Your task to perform on an android device: Open Wikipedia Image 0: 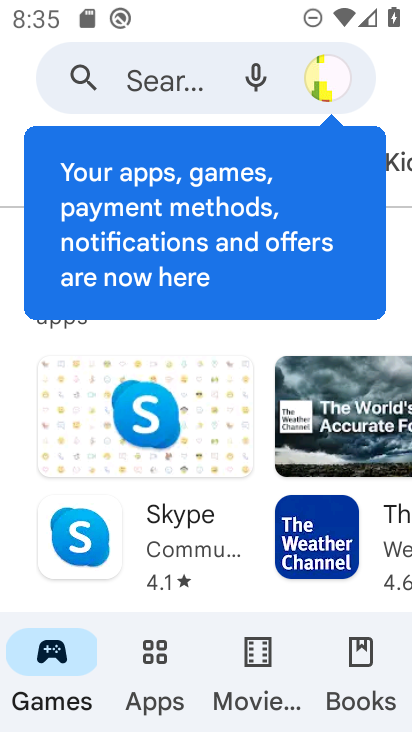
Step 0: press home button
Your task to perform on an android device: Open Wikipedia Image 1: 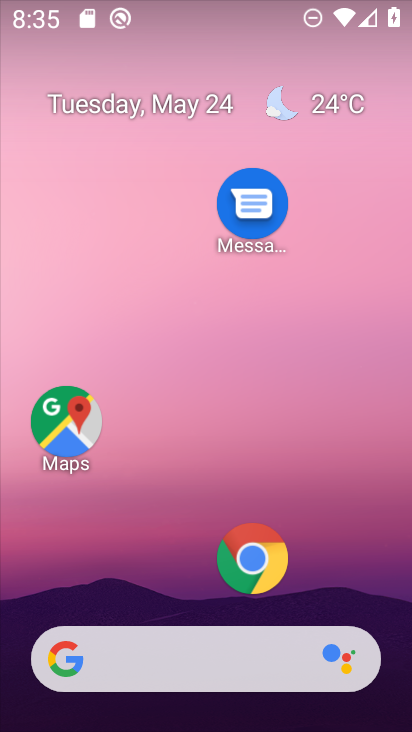
Step 1: drag from (192, 595) to (195, 225)
Your task to perform on an android device: Open Wikipedia Image 2: 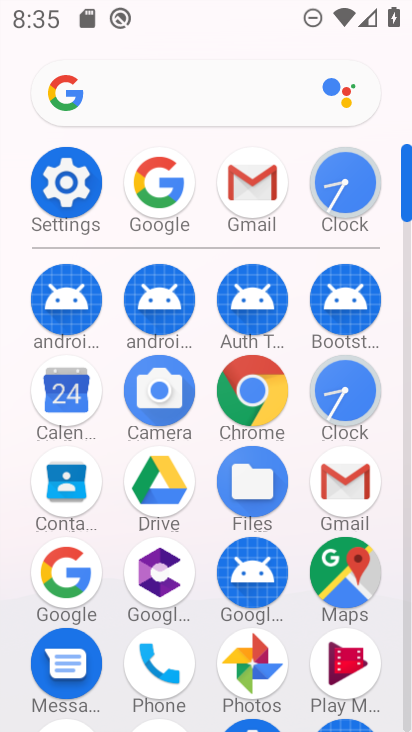
Step 2: click (239, 415)
Your task to perform on an android device: Open Wikipedia Image 3: 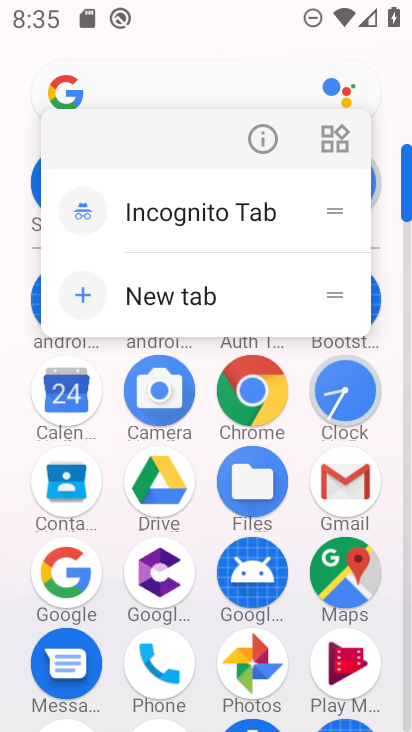
Step 3: click (236, 423)
Your task to perform on an android device: Open Wikipedia Image 4: 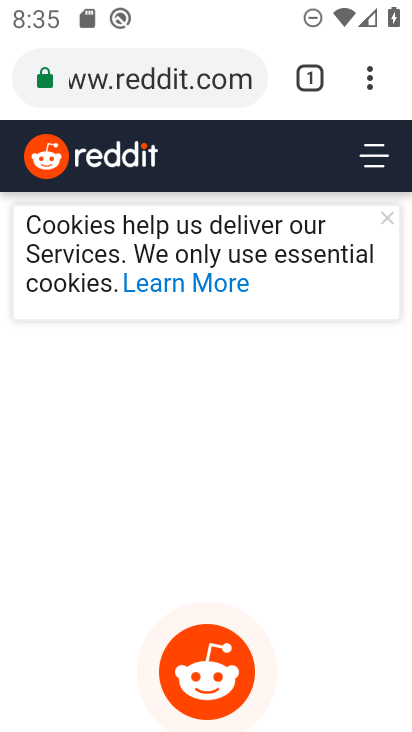
Step 4: click (308, 89)
Your task to perform on an android device: Open Wikipedia Image 5: 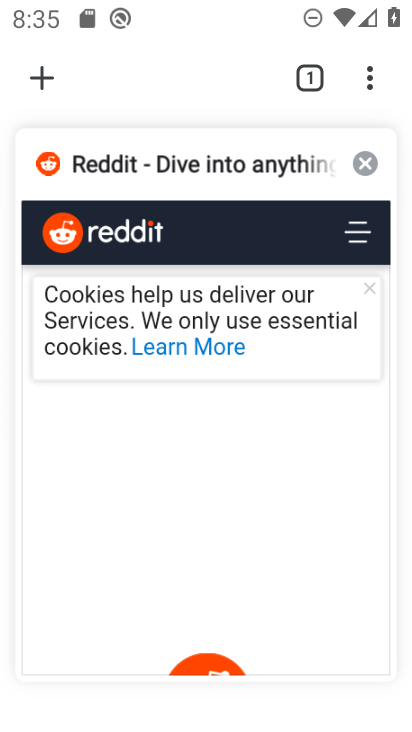
Step 5: click (27, 77)
Your task to perform on an android device: Open Wikipedia Image 6: 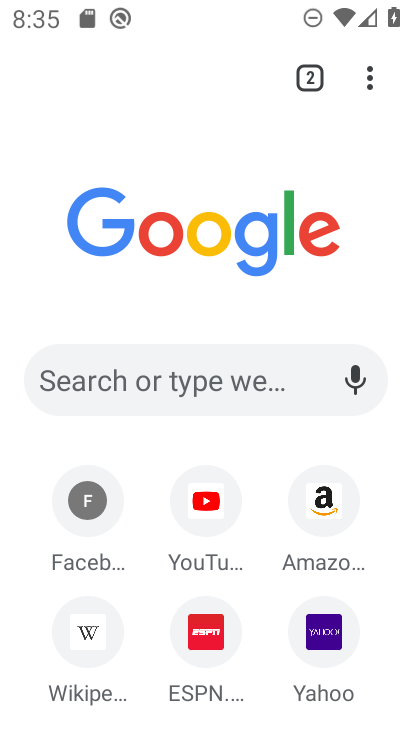
Step 6: click (174, 404)
Your task to perform on an android device: Open Wikipedia Image 7: 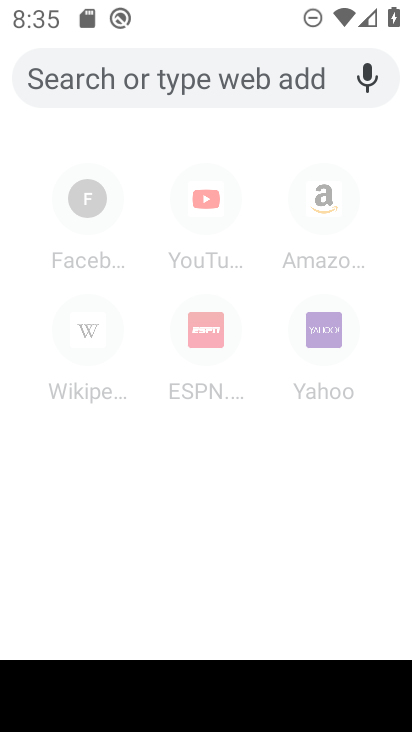
Step 7: type "Wikipedia"
Your task to perform on an android device: Open Wikipedia Image 8: 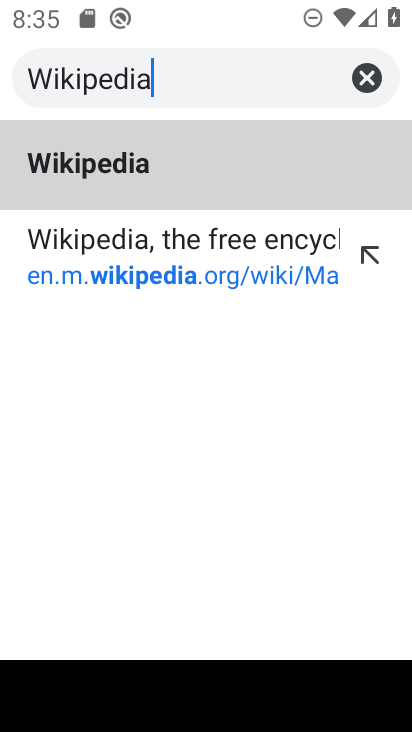
Step 8: click (192, 192)
Your task to perform on an android device: Open Wikipedia Image 9: 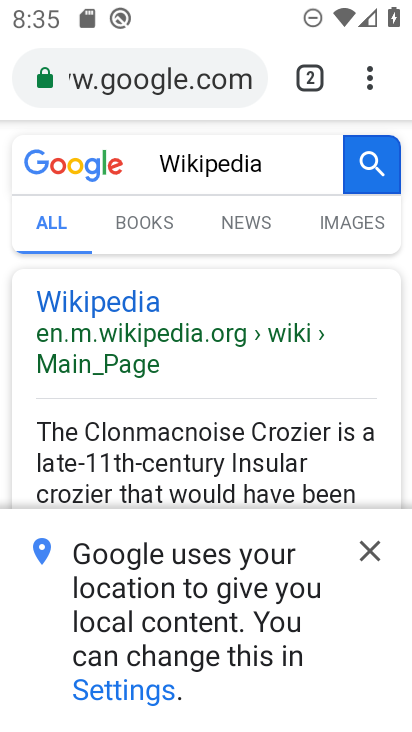
Step 9: click (110, 311)
Your task to perform on an android device: Open Wikipedia Image 10: 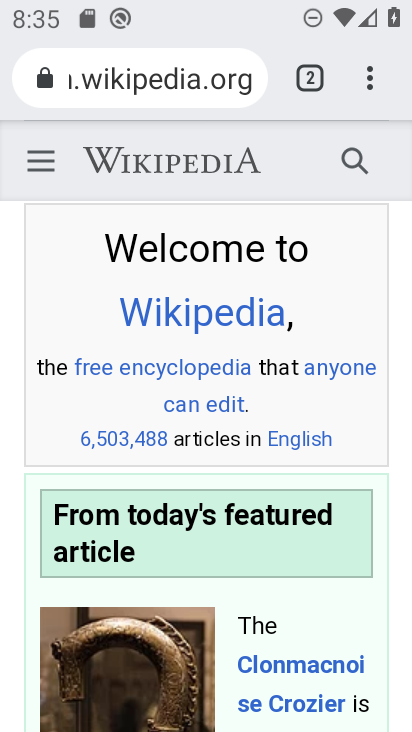
Step 10: task complete